Your task to perform on an android device: toggle pop-ups in chrome Image 0: 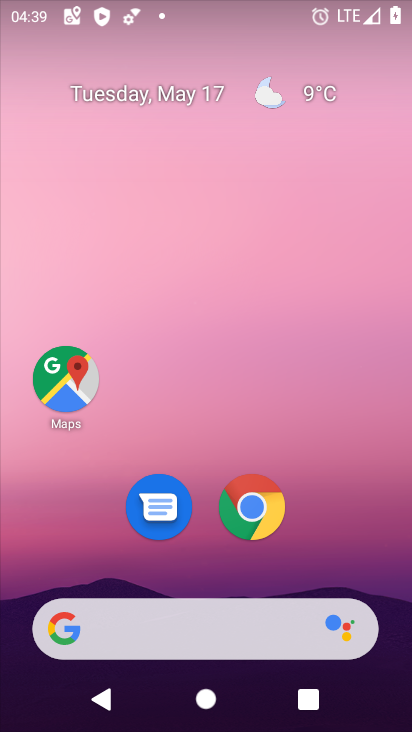
Step 0: click (260, 505)
Your task to perform on an android device: toggle pop-ups in chrome Image 1: 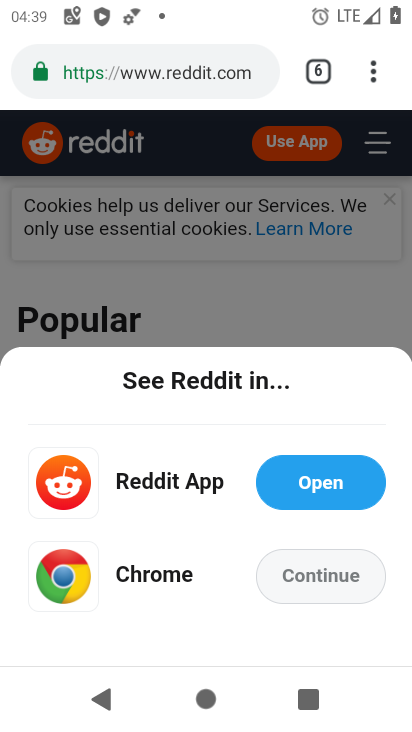
Step 1: click (374, 74)
Your task to perform on an android device: toggle pop-ups in chrome Image 2: 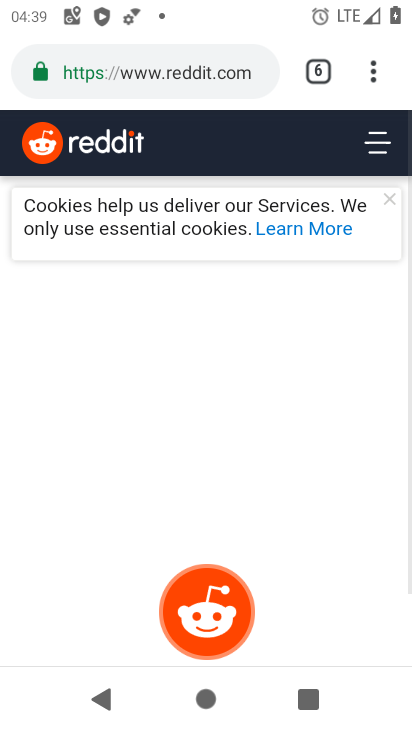
Step 2: click (369, 66)
Your task to perform on an android device: toggle pop-ups in chrome Image 3: 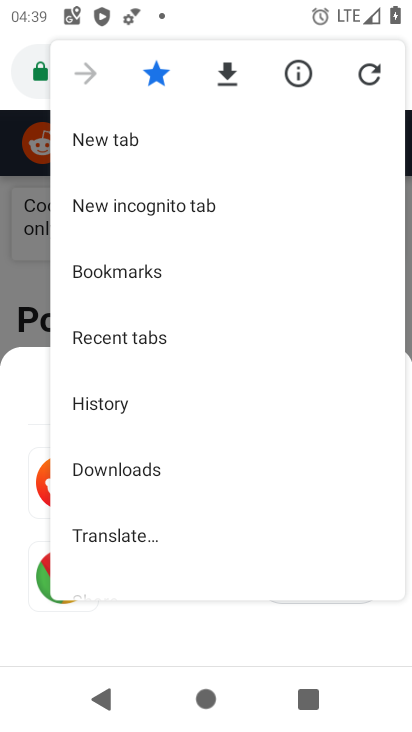
Step 3: drag from (234, 483) to (195, 111)
Your task to perform on an android device: toggle pop-ups in chrome Image 4: 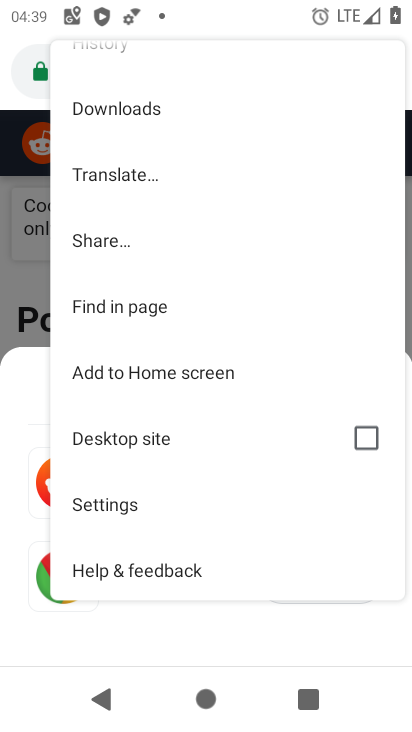
Step 4: drag from (203, 444) to (230, 195)
Your task to perform on an android device: toggle pop-ups in chrome Image 5: 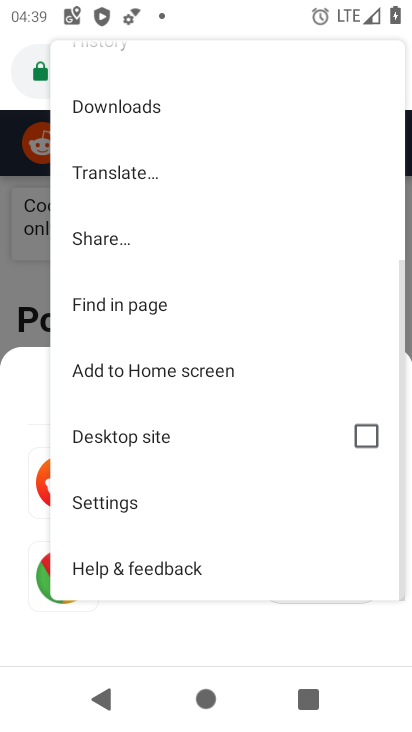
Step 5: click (167, 512)
Your task to perform on an android device: toggle pop-ups in chrome Image 6: 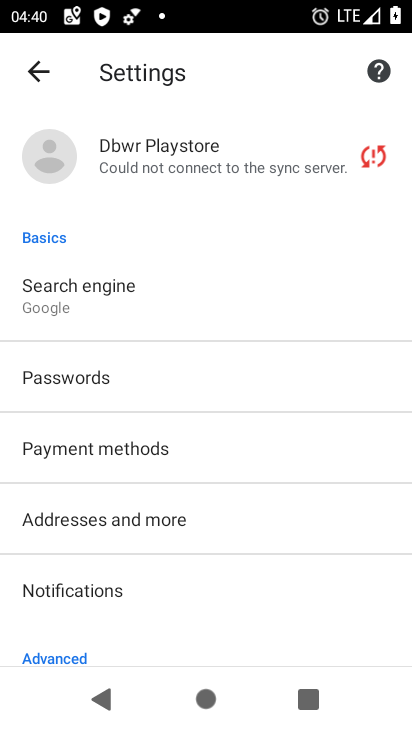
Step 6: drag from (153, 552) to (95, 168)
Your task to perform on an android device: toggle pop-ups in chrome Image 7: 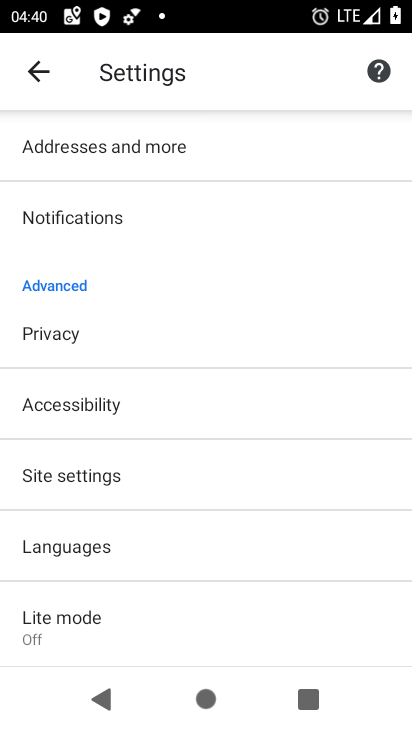
Step 7: click (134, 468)
Your task to perform on an android device: toggle pop-ups in chrome Image 8: 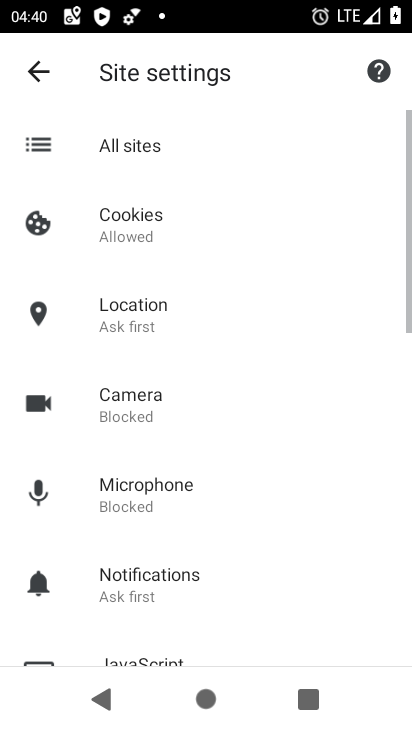
Step 8: drag from (218, 343) to (193, 176)
Your task to perform on an android device: toggle pop-ups in chrome Image 9: 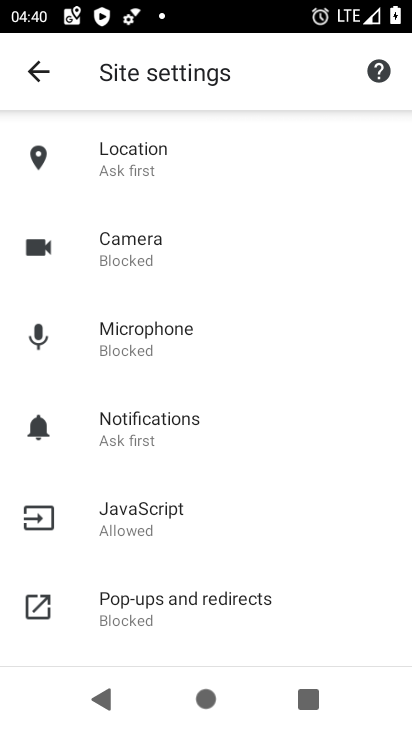
Step 9: click (207, 599)
Your task to perform on an android device: toggle pop-ups in chrome Image 10: 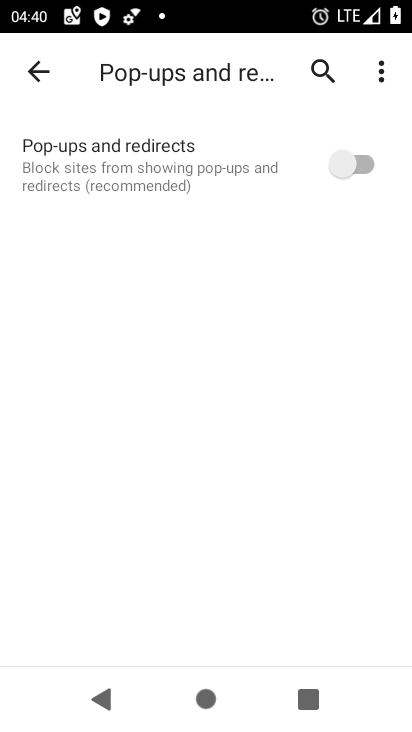
Step 10: click (356, 150)
Your task to perform on an android device: toggle pop-ups in chrome Image 11: 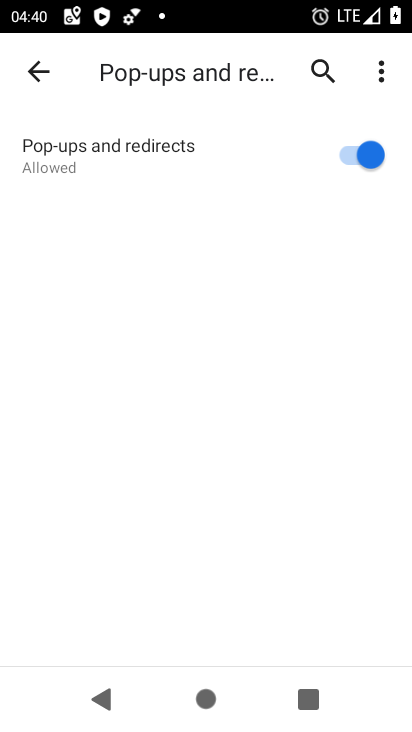
Step 11: task complete